Your task to perform on an android device: What is the recent news? Image 0: 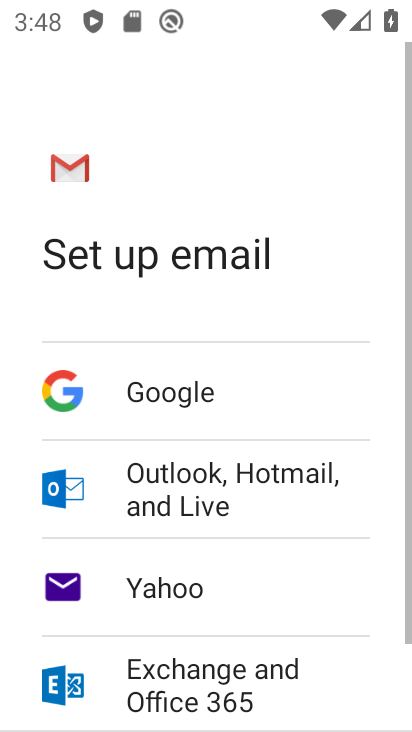
Step 0: press home button
Your task to perform on an android device: What is the recent news? Image 1: 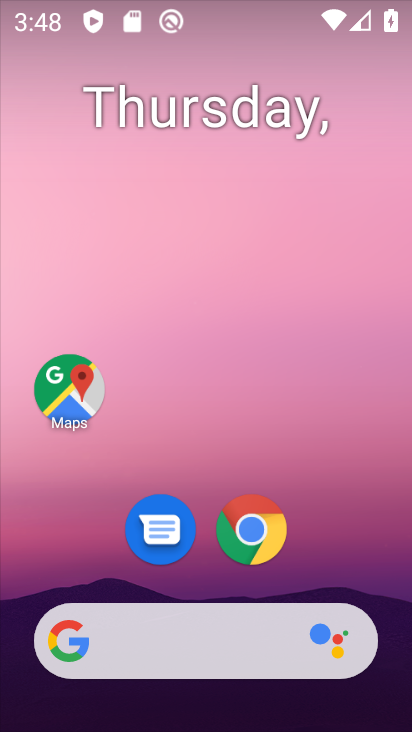
Step 1: task complete